Your task to perform on an android device: Check the weather Image 0: 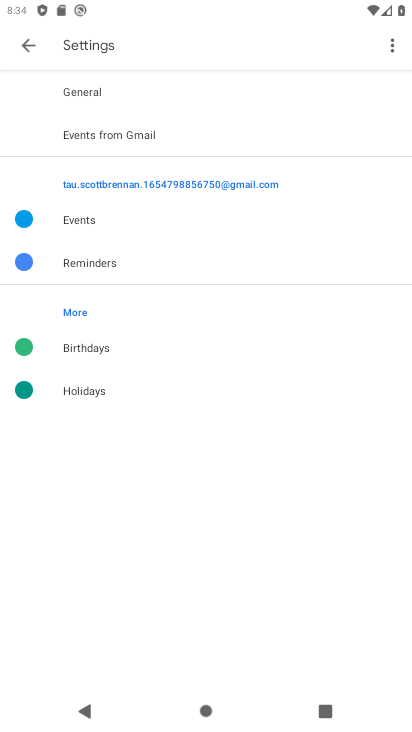
Step 0: press home button
Your task to perform on an android device: Check the weather Image 1: 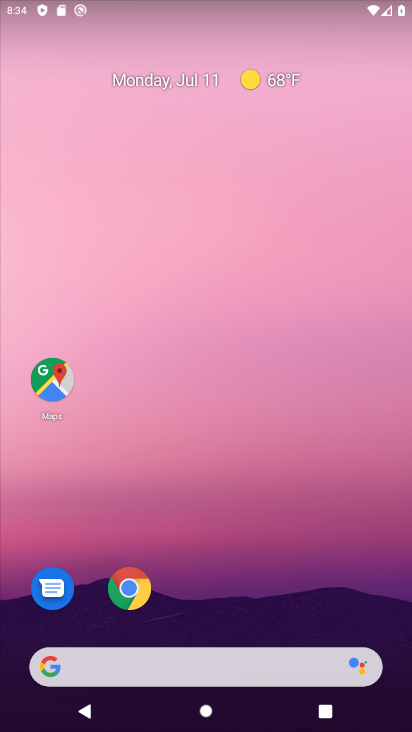
Step 1: click (203, 664)
Your task to perform on an android device: Check the weather Image 2: 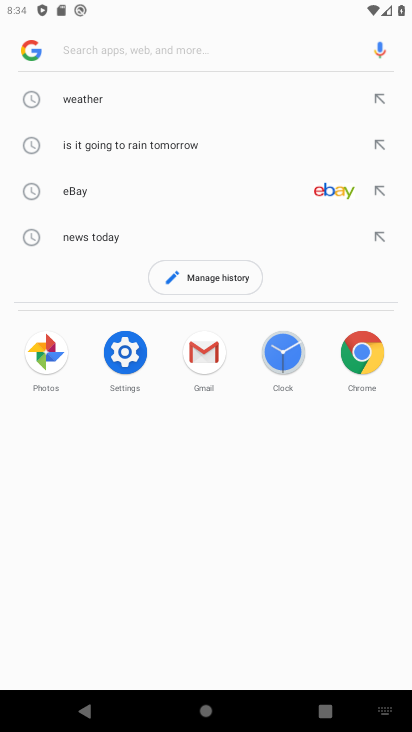
Step 2: click (72, 95)
Your task to perform on an android device: Check the weather Image 3: 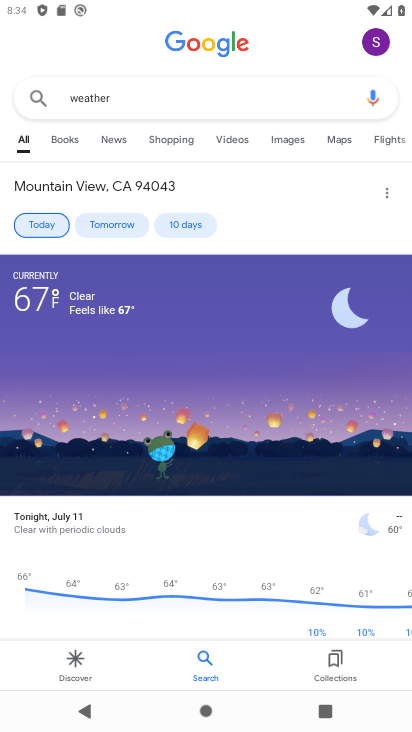
Step 3: task complete